Your task to perform on an android device: Search for seafood restaurants on Google Maps Image 0: 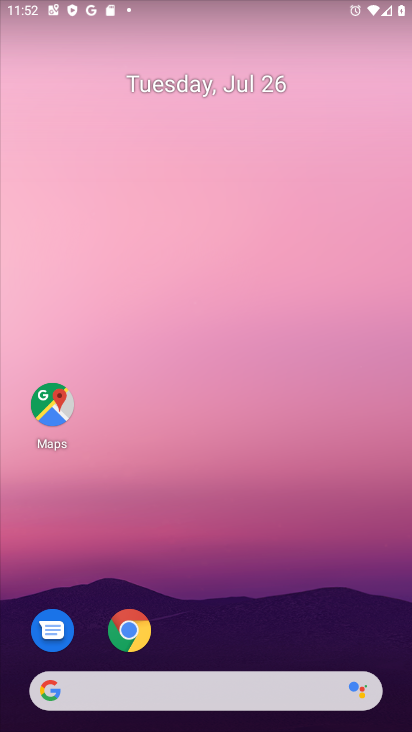
Step 0: click (48, 410)
Your task to perform on an android device: Search for seafood restaurants on Google Maps Image 1: 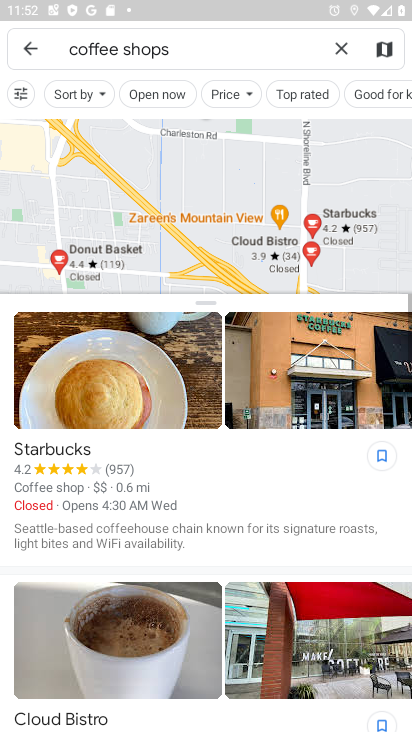
Step 1: click (349, 47)
Your task to perform on an android device: Search for seafood restaurants on Google Maps Image 2: 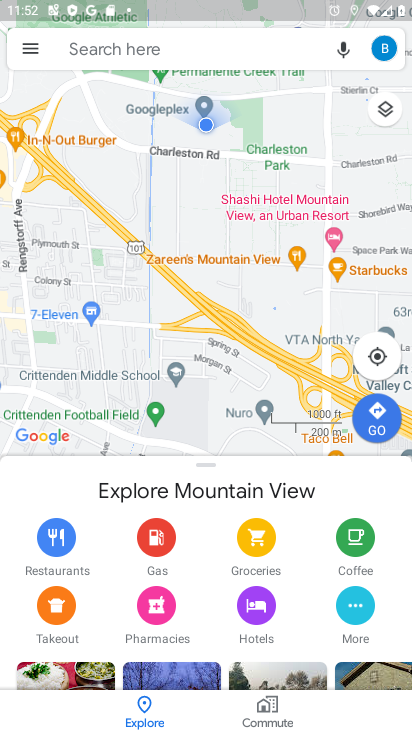
Step 2: click (271, 53)
Your task to perform on an android device: Search for seafood restaurants on Google Maps Image 3: 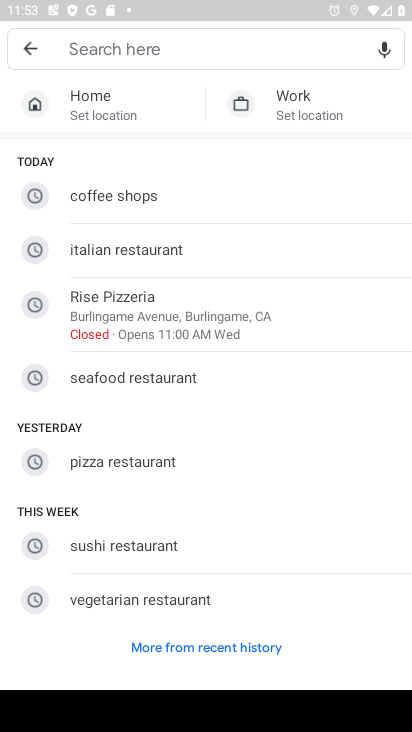
Step 3: drag from (342, 444) to (271, 90)
Your task to perform on an android device: Search for seafood restaurants on Google Maps Image 4: 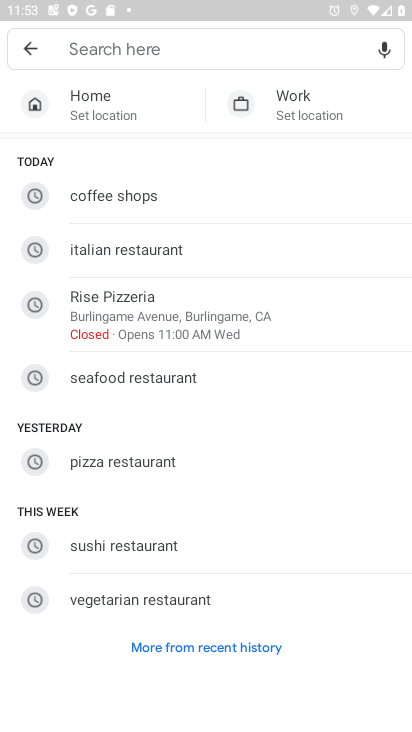
Step 4: click (141, 38)
Your task to perform on an android device: Search for seafood restaurants on Google Maps Image 5: 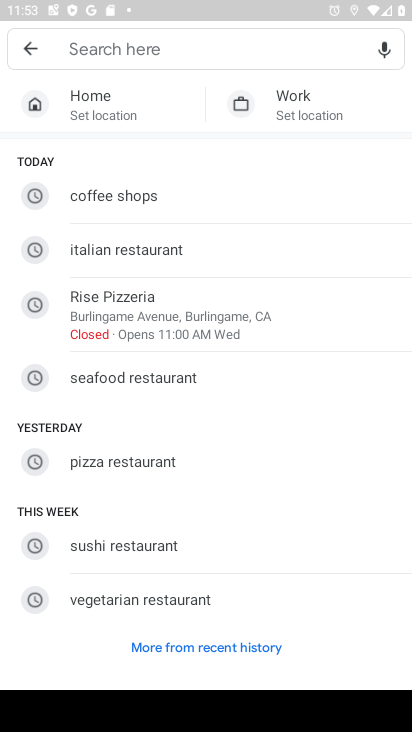
Step 5: type "seafood restaurant "
Your task to perform on an android device: Search for seafood restaurants on Google Maps Image 6: 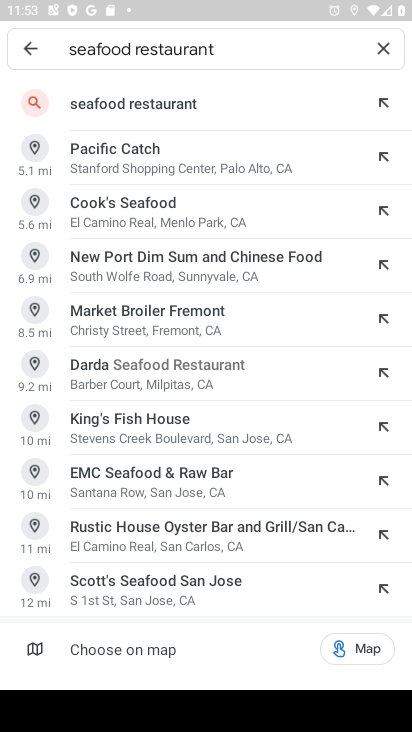
Step 6: click (265, 123)
Your task to perform on an android device: Search for seafood restaurants on Google Maps Image 7: 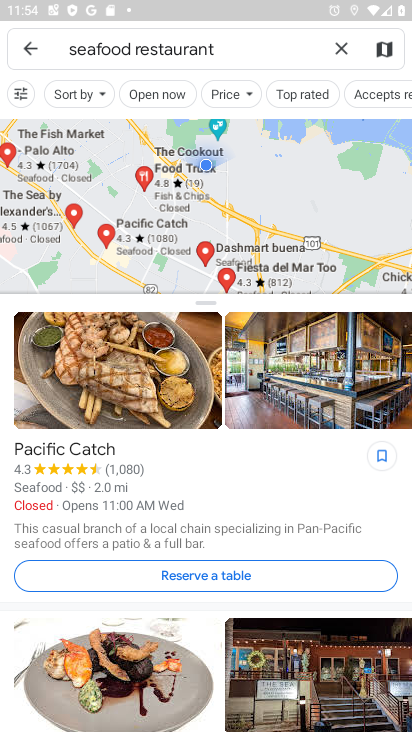
Step 7: task complete